Your task to perform on an android device: Open my contact list Image 0: 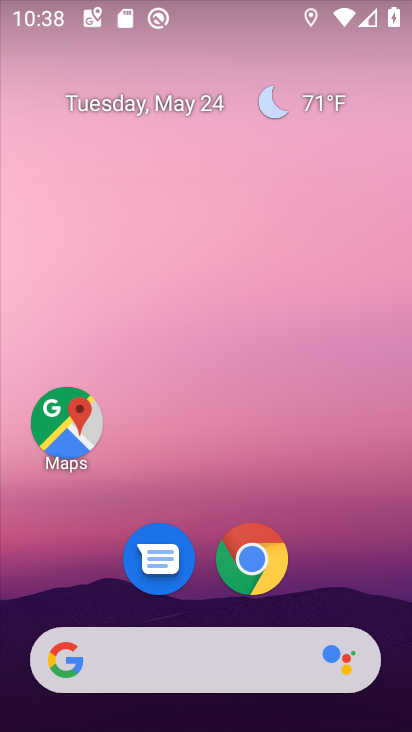
Step 0: drag from (401, 660) to (272, 50)
Your task to perform on an android device: Open my contact list Image 1: 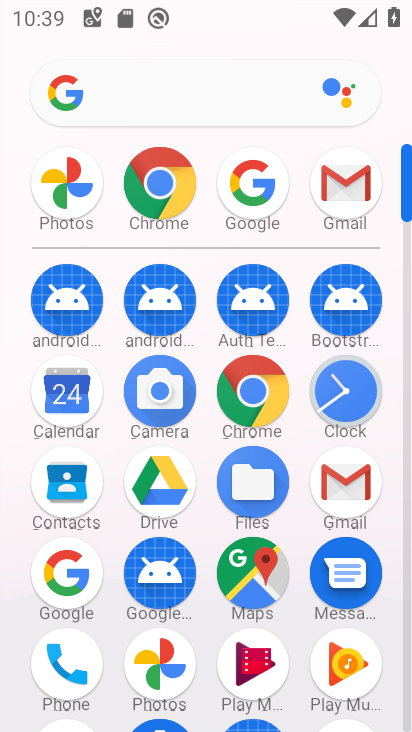
Step 1: click (61, 508)
Your task to perform on an android device: Open my contact list Image 2: 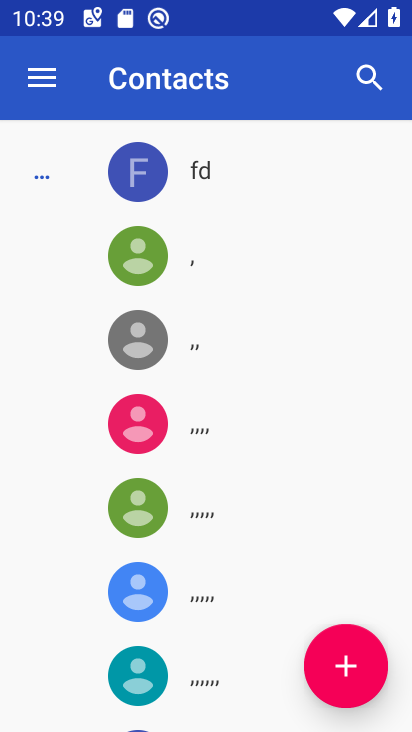
Step 2: task complete